Your task to perform on an android device: Open Chrome and go to settings Image 0: 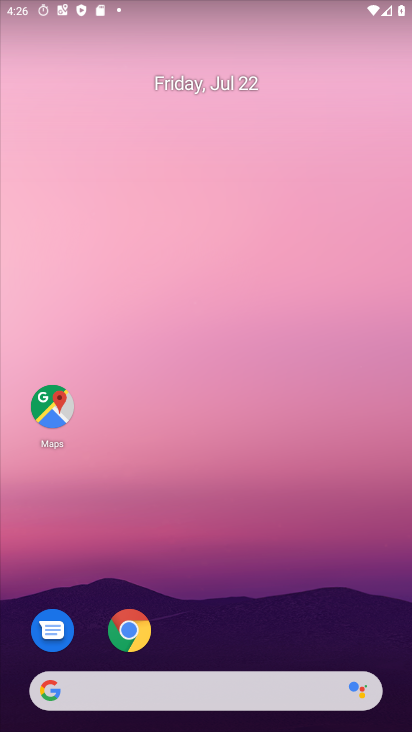
Step 0: drag from (300, 677) to (365, 5)
Your task to perform on an android device: Open Chrome and go to settings Image 1: 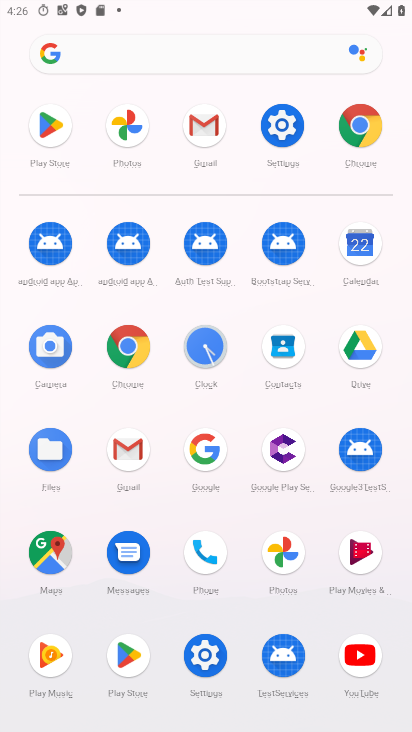
Step 1: click (126, 339)
Your task to perform on an android device: Open Chrome and go to settings Image 2: 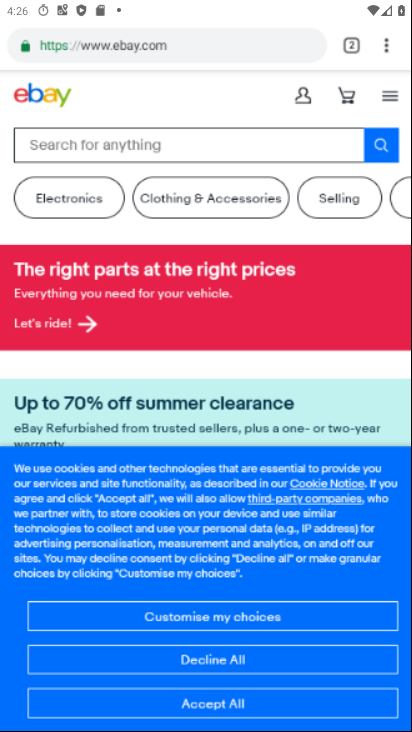
Step 2: task complete